Your task to perform on an android device: Search for seafood restaurants on Google Maps Image 0: 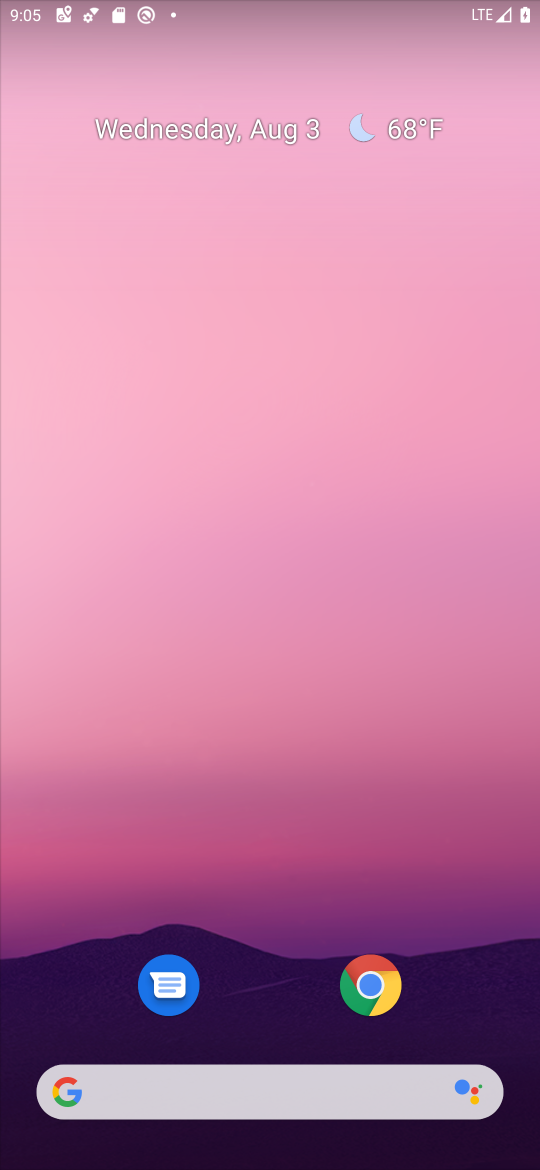
Step 0: drag from (251, 961) to (273, 150)
Your task to perform on an android device: Search for seafood restaurants on Google Maps Image 1: 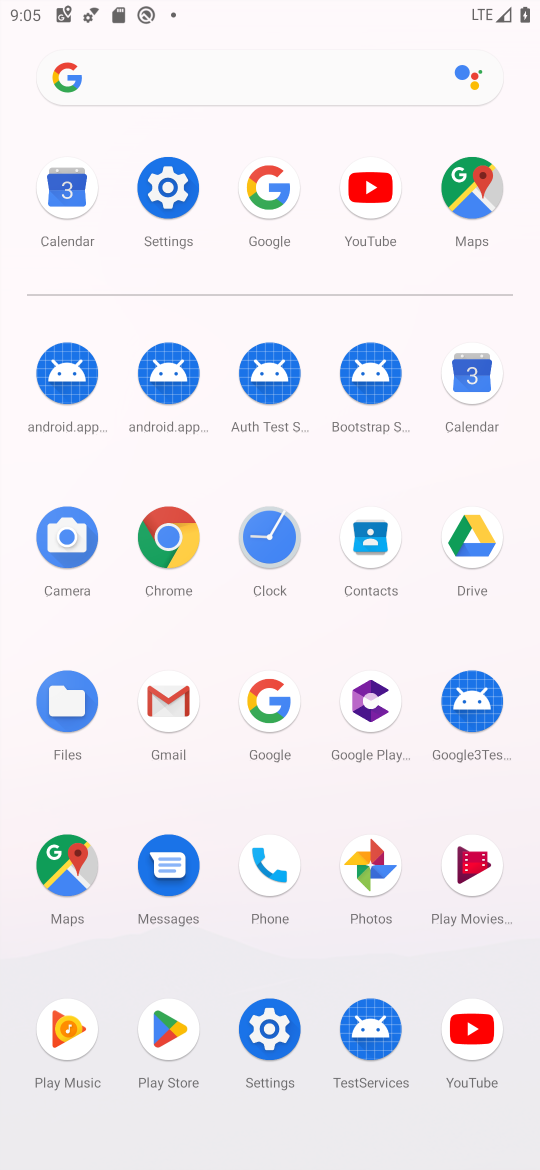
Step 1: click (454, 206)
Your task to perform on an android device: Search for seafood restaurants on Google Maps Image 2: 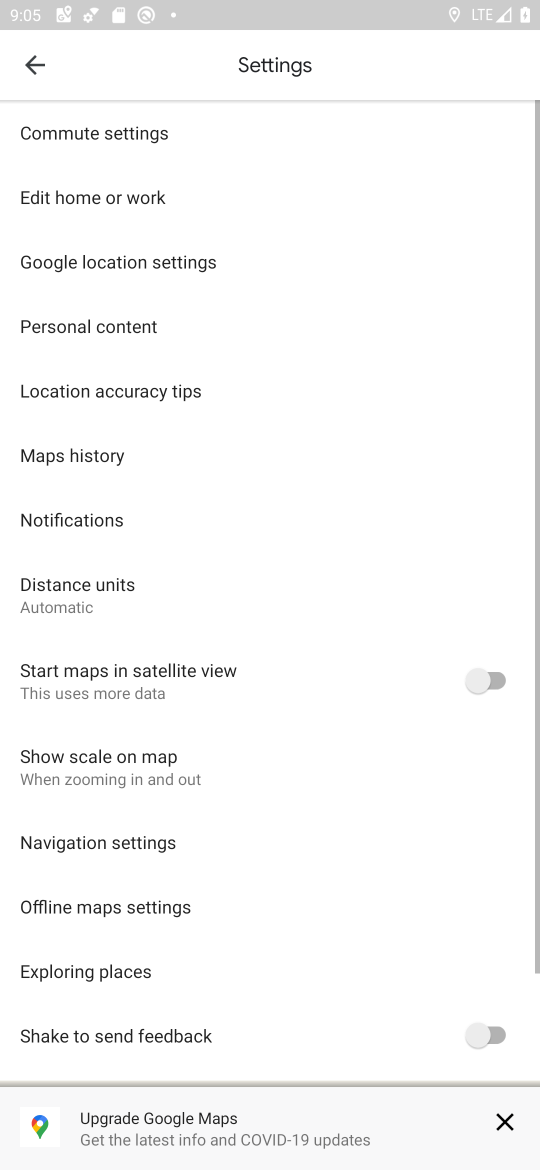
Step 2: click (34, 52)
Your task to perform on an android device: Search for seafood restaurants on Google Maps Image 3: 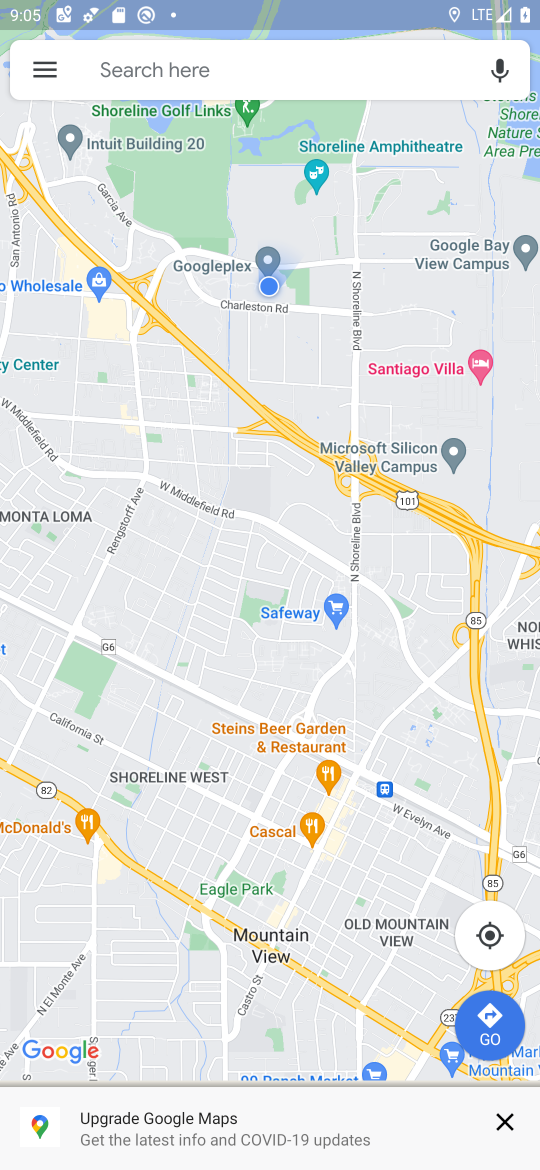
Step 3: click (247, 70)
Your task to perform on an android device: Search for seafood restaurants on Google Maps Image 4: 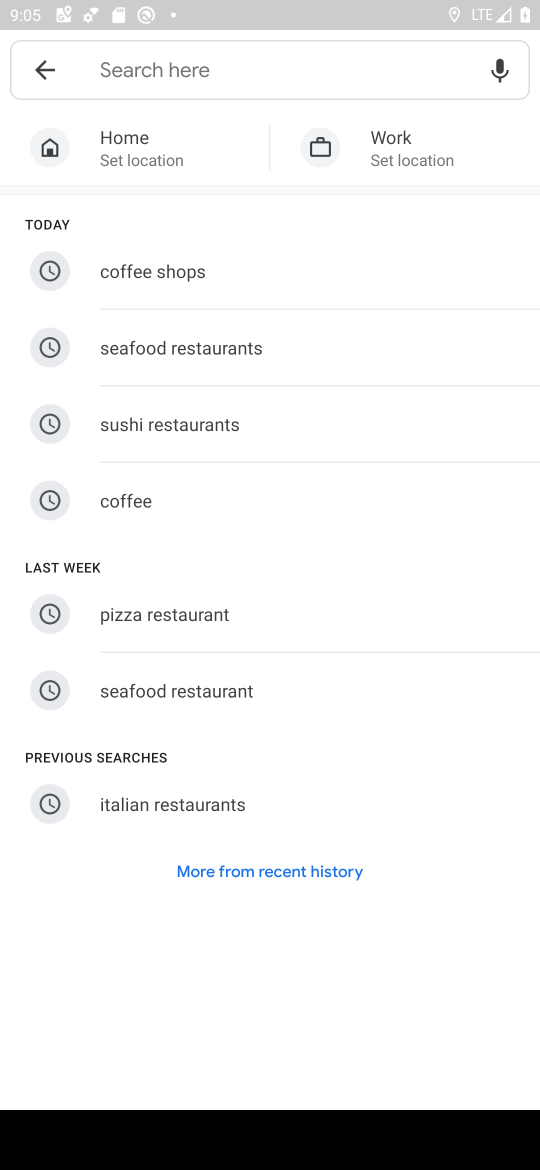
Step 4: click (253, 358)
Your task to perform on an android device: Search for seafood restaurants on Google Maps Image 5: 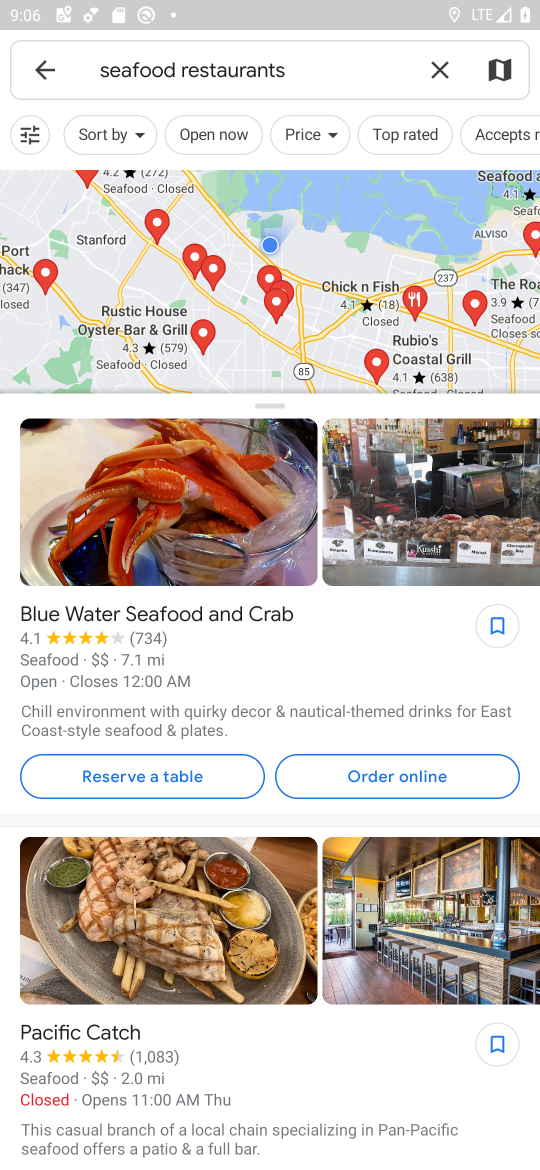
Step 5: task complete